Your task to perform on an android device: check storage Image 0: 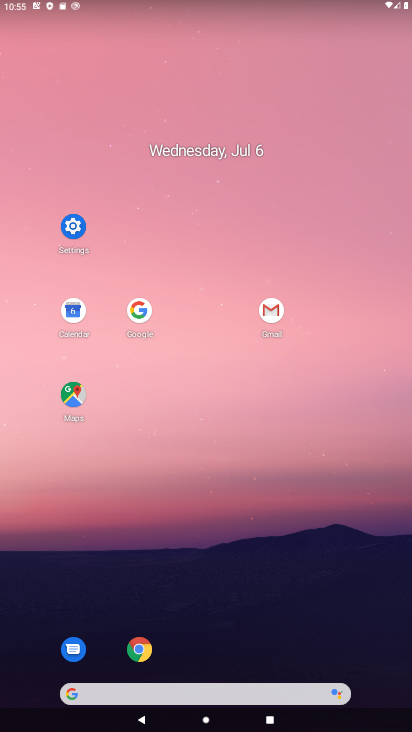
Step 0: click (80, 219)
Your task to perform on an android device: check storage Image 1: 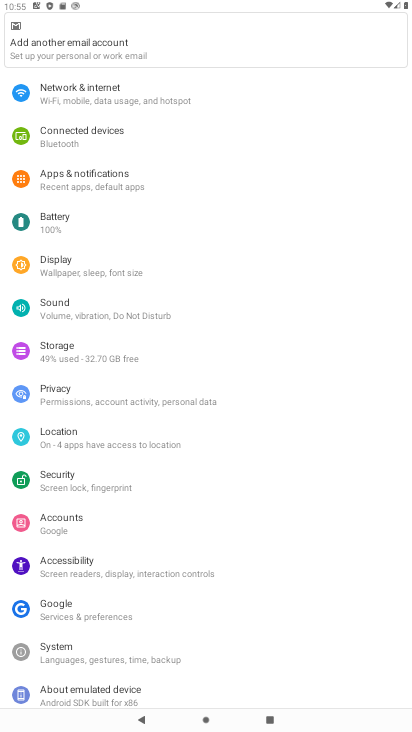
Step 1: drag from (197, 154) to (242, 533)
Your task to perform on an android device: check storage Image 2: 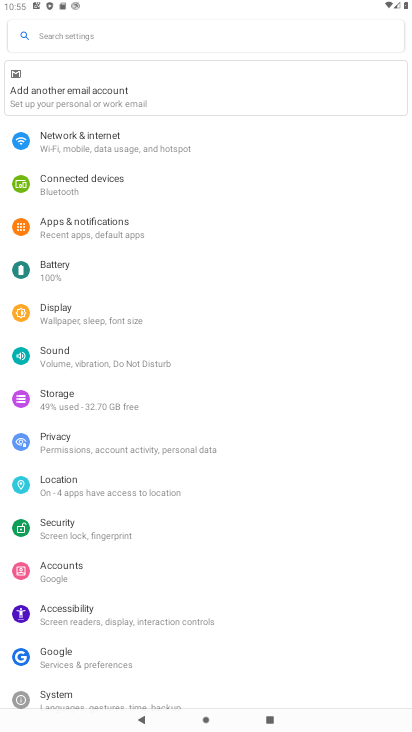
Step 2: click (128, 393)
Your task to perform on an android device: check storage Image 3: 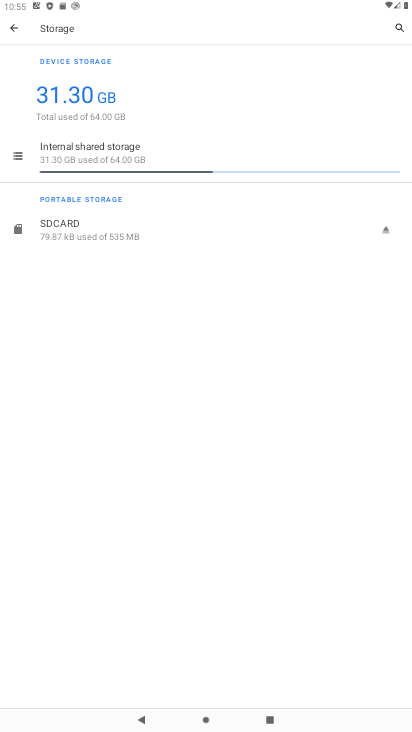
Step 3: task complete